Your task to perform on an android device: Open the stopwatch Image 0: 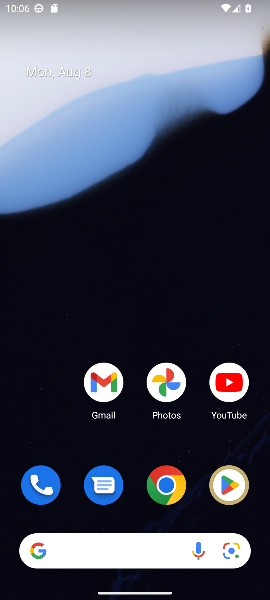
Step 0: drag from (194, 499) to (200, 85)
Your task to perform on an android device: Open the stopwatch Image 1: 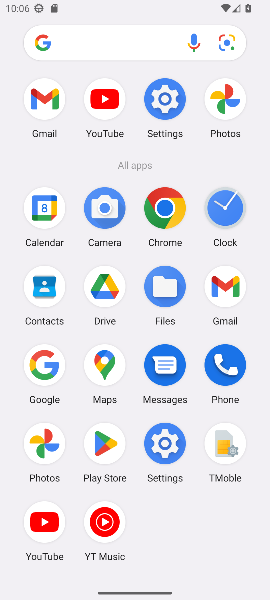
Step 1: click (224, 219)
Your task to perform on an android device: Open the stopwatch Image 2: 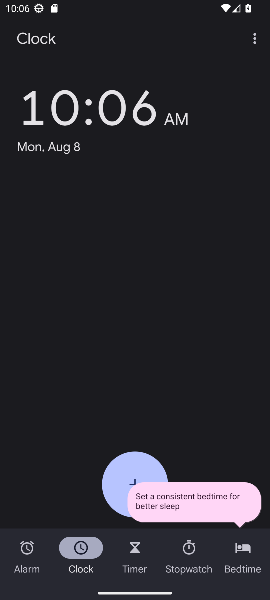
Step 2: click (186, 557)
Your task to perform on an android device: Open the stopwatch Image 3: 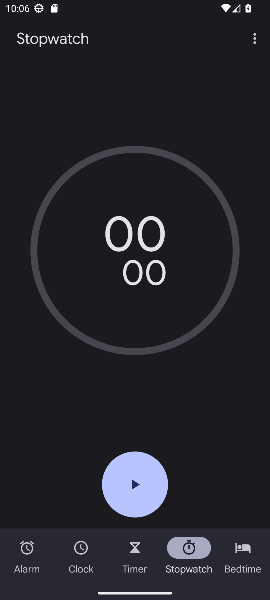
Step 3: task complete